Your task to perform on an android device: open sync settings in chrome Image 0: 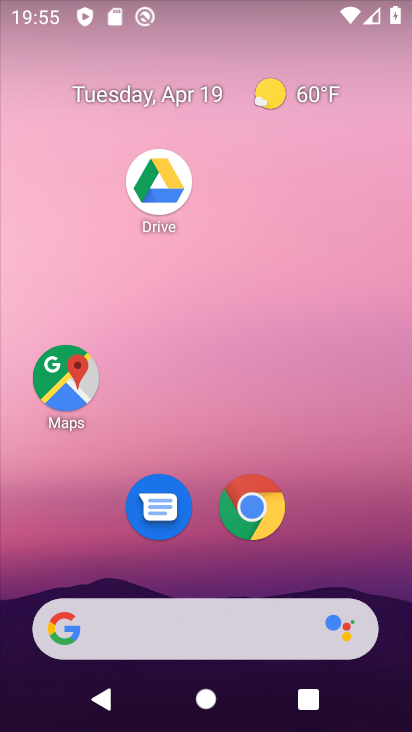
Step 0: click (268, 500)
Your task to perform on an android device: open sync settings in chrome Image 1: 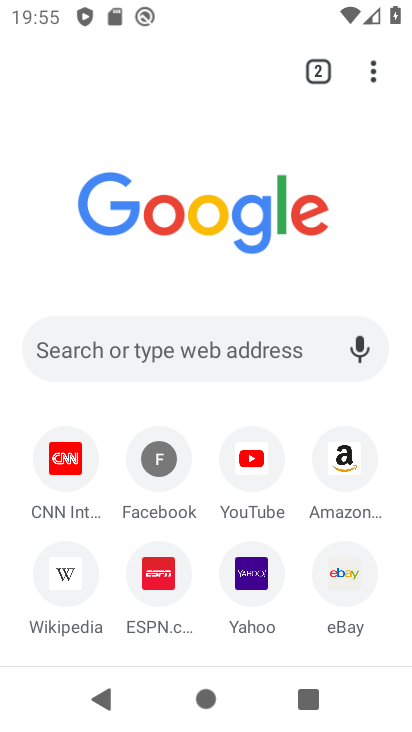
Step 1: drag from (369, 63) to (268, 488)
Your task to perform on an android device: open sync settings in chrome Image 2: 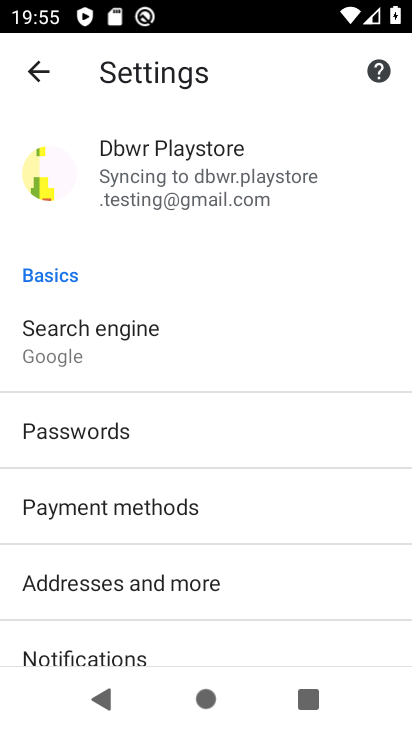
Step 2: click (196, 172)
Your task to perform on an android device: open sync settings in chrome Image 3: 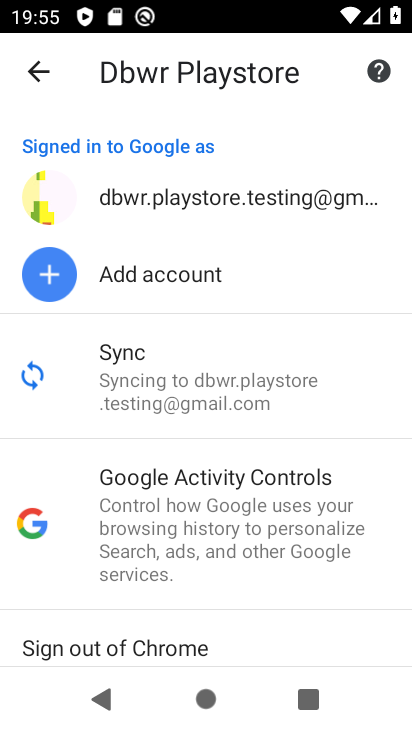
Step 3: click (263, 384)
Your task to perform on an android device: open sync settings in chrome Image 4: 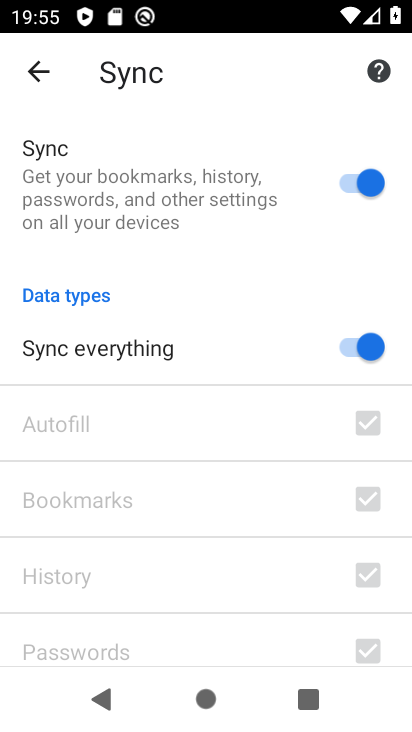
Step 4: task complete